Your task to perform on an android device: Clear the cart on newegg.com. Add "bose soundlink mini" to the cart on newegg.com Image 0: 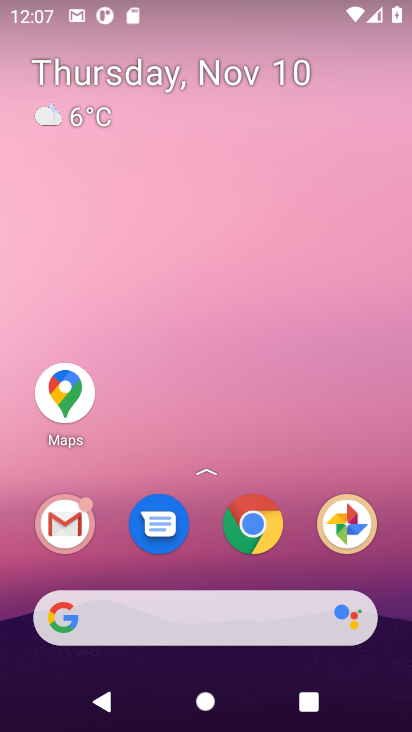
Step 0: click (247, 520)
Your task to perform on an android device: Clear the cart on newegg.com. Add "bose soundlink mini" to the cart on newegg.com Image 1: 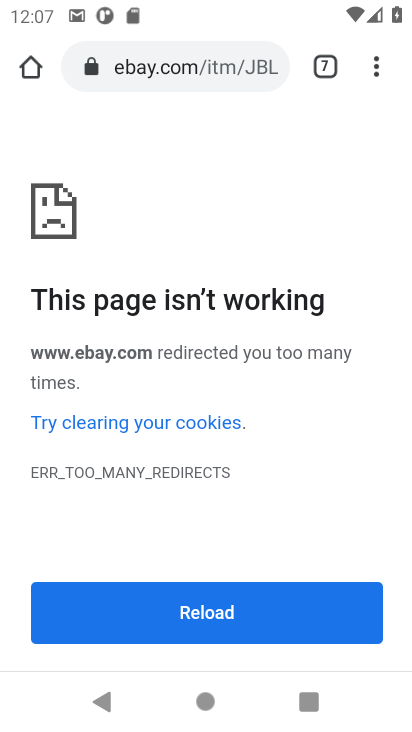
Step 1: click (325, 67)
Your task to perform on an android device: Clear the cart on newegg.com. Add "bose soundlink mini" to the cart on newegg.com Image 2: 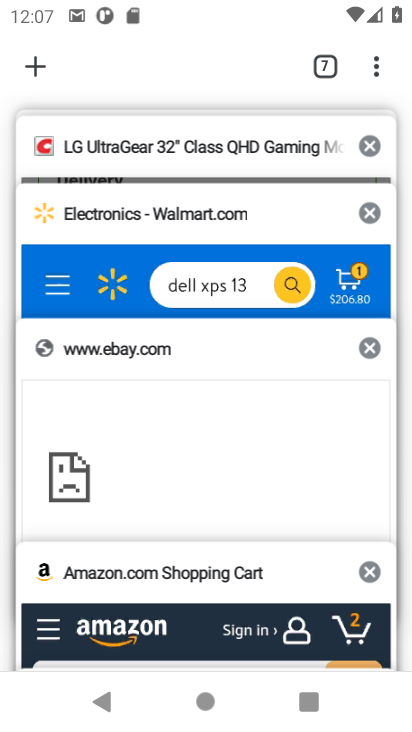
Step 2: drag from (221, 152) to (215, 309)
Your task to perform on an android device: Clear the cart on newegg.com. Add "bose soundlink mini" to the cart on newegg.com Image 3: 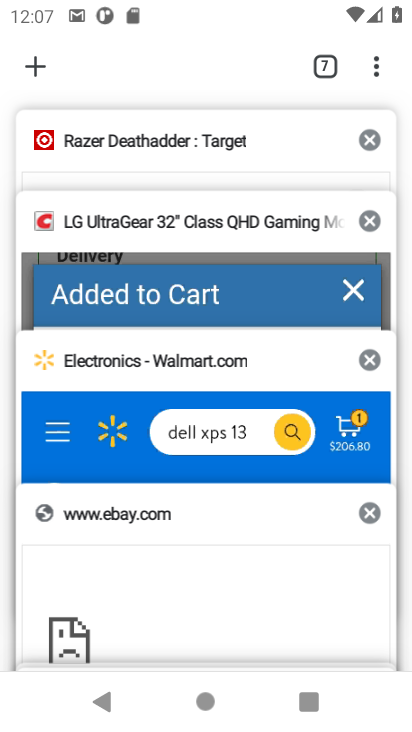
Step 3: drag from (184, 623) to (213, 427)
Your task to perform on an android device: Clear the cart on newegg.com. Add "bose soundlink mini" to the cart on newegg.com Image 4: 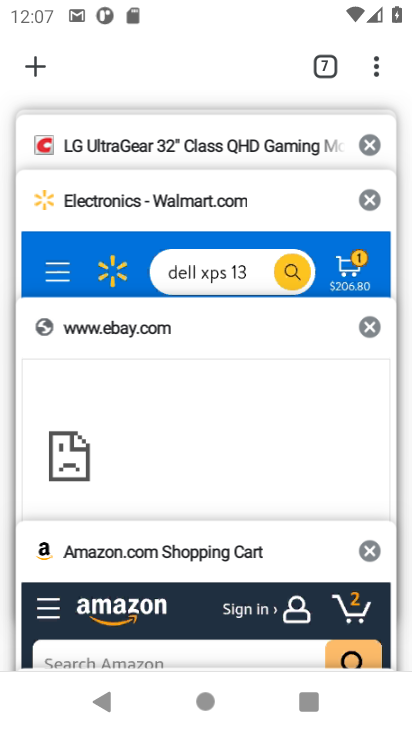
Step 4: drag from (230, 597) to (258, 488)
Your task to perform on an android device: Clear the cart on newegg.com. Add "bose soundlink mini" to the cart on newegg.com Image 5: 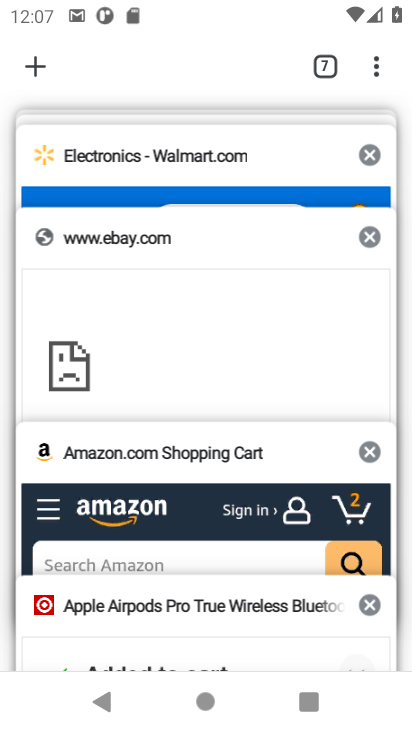
Step 5: drag from (195, 642) to (235, 442)
Your task to perform on an android device: Clear the cart on newegg.com. Add "bose soundlink mini" to the cart on newegg.com Image 6: 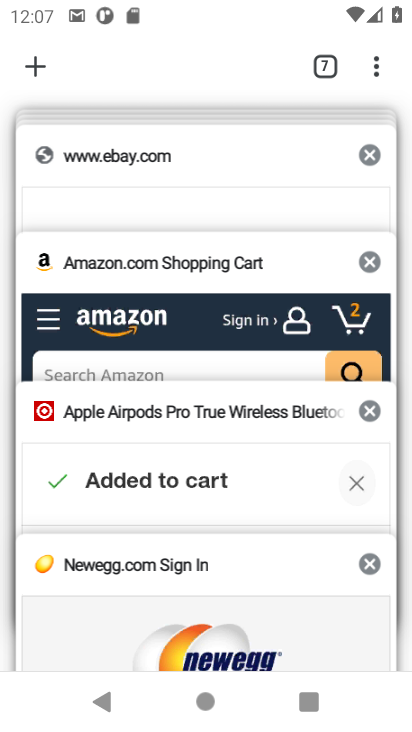
Step 6: click (191, 569)
Your task to perform on an android device: Clear the cart on newegg.com. Add "bose soundlink mini" to the cart on newegg.com Image 7: 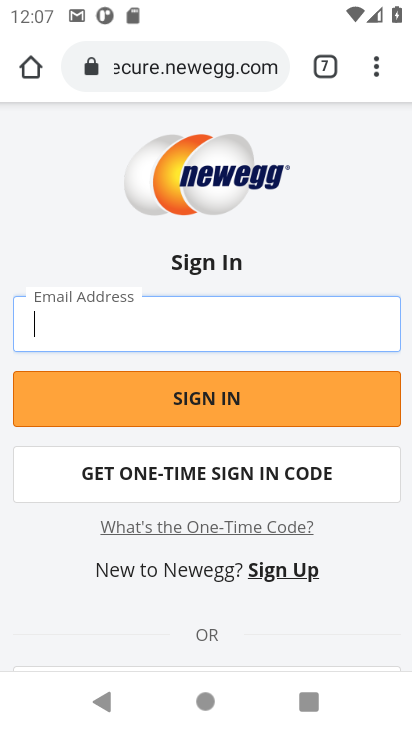
Step 7: press back button
Your task to perform on an android device: Clear the cart on newegg.com. Add "bose soundlink mini" to the cart on newegg.com Image 8: 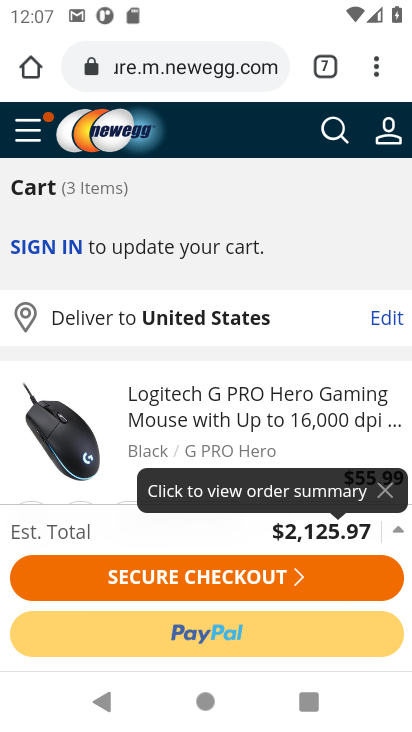
Step 8: click (332, 136)
Your task to perform on an android device: Clear the cart on newegg.com. Add "bose soundlink mini" to the cart on newegg.com Image 9: 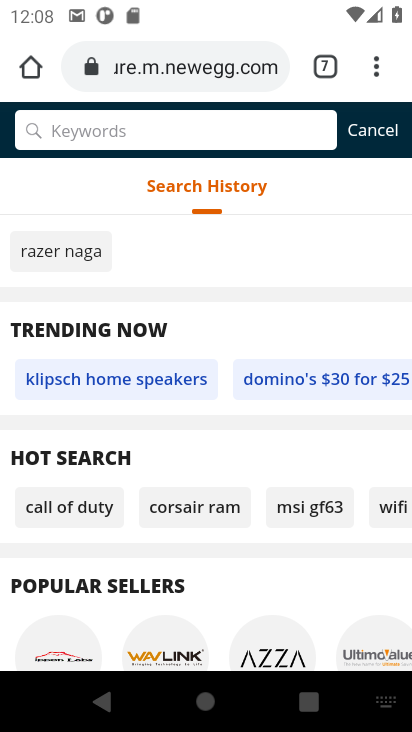
Step 9: type "bose soundlink mini"
Your task to perform on an android device: Clear the cart on newegg.com. Add "bose soundlink mini" to the cart on newegg.com Image 10: 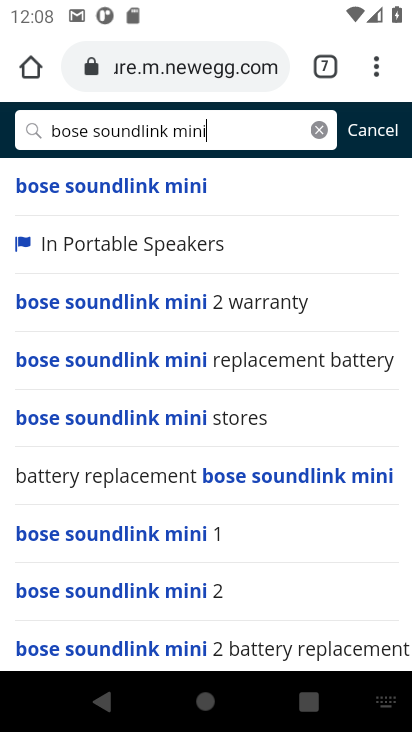
Step 10: click (81, 182)
Your task to perform on an android device: Clear the cart on newegg.com. Add "bose soundlink mini" to the cart on newegg.com Image 11: 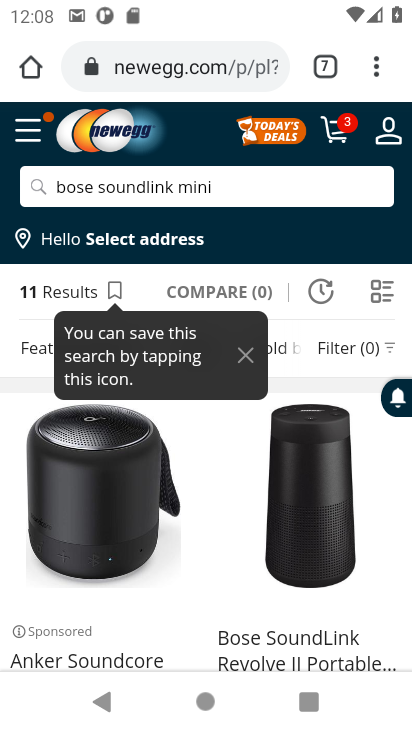
Step 11: drag from (157, 659) to (240, 414)
Your task to perform on an android device: Clear the cart on newegg.com. Add "bose soundlink mini" to the cart on newegg.com Image 12: 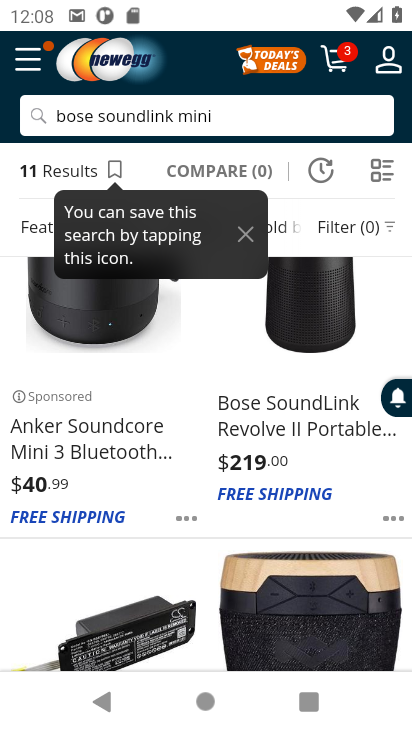
Step 12: click (308, 420)
Your task to perform on an android device: Clear the cart on newegg.com. Add "bose soundlink mini" to the cart on newegg.com Image 13: 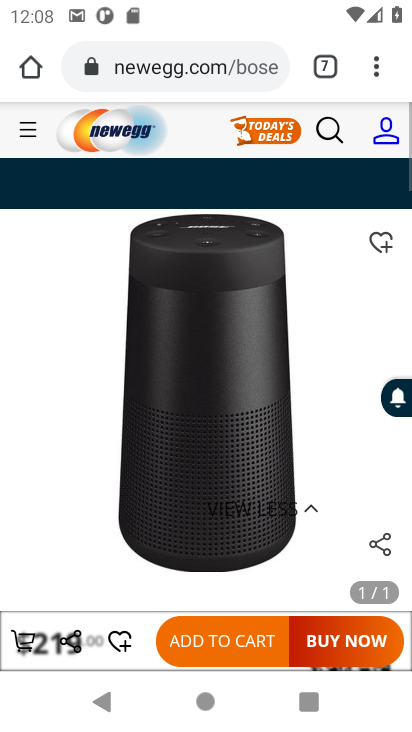
Step 13: click (225, 637)
Your task to perform on an android device: Clear the cart on newegg.com. Add "bose soundlink mini" to the cart on newegg.com Image 14: 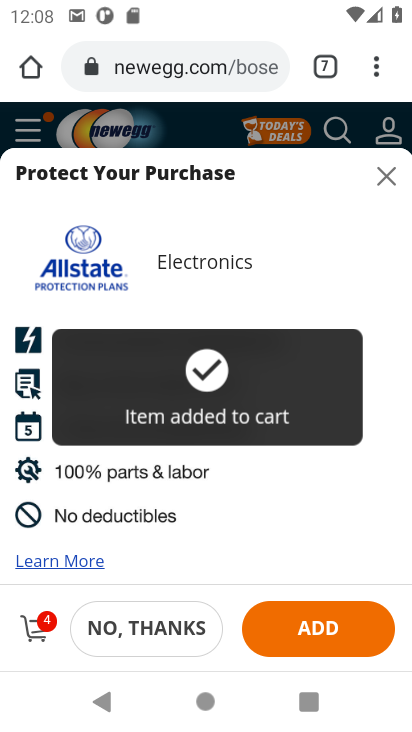
Step 14: task complete